Your task to perform on an android device: turn off data saver in the chrome app Image 0: 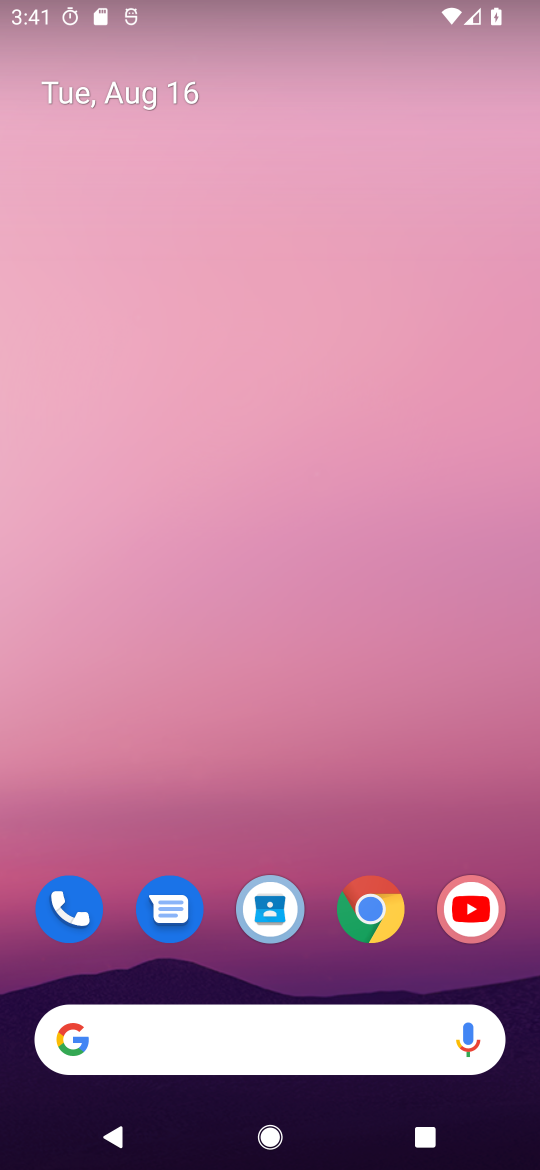
Step 0: click (388, 900)
Your task to perform on an android device: turn off data saver in the chrome app Image 1: 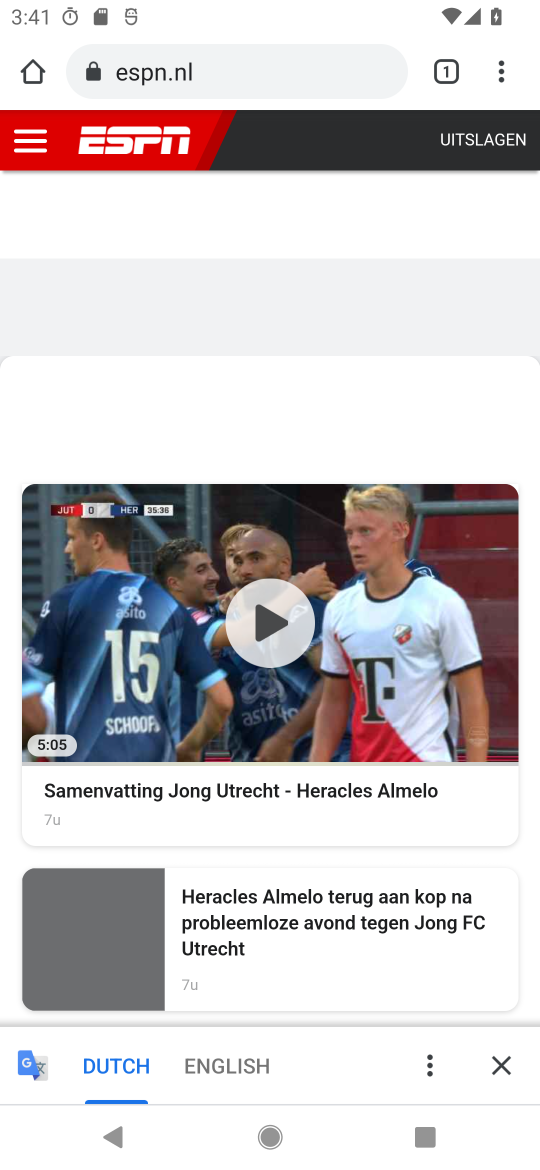
Step 1: click (497, 74)
Your task to perform on an android device: turn off data saver in the chrome app Image 2: 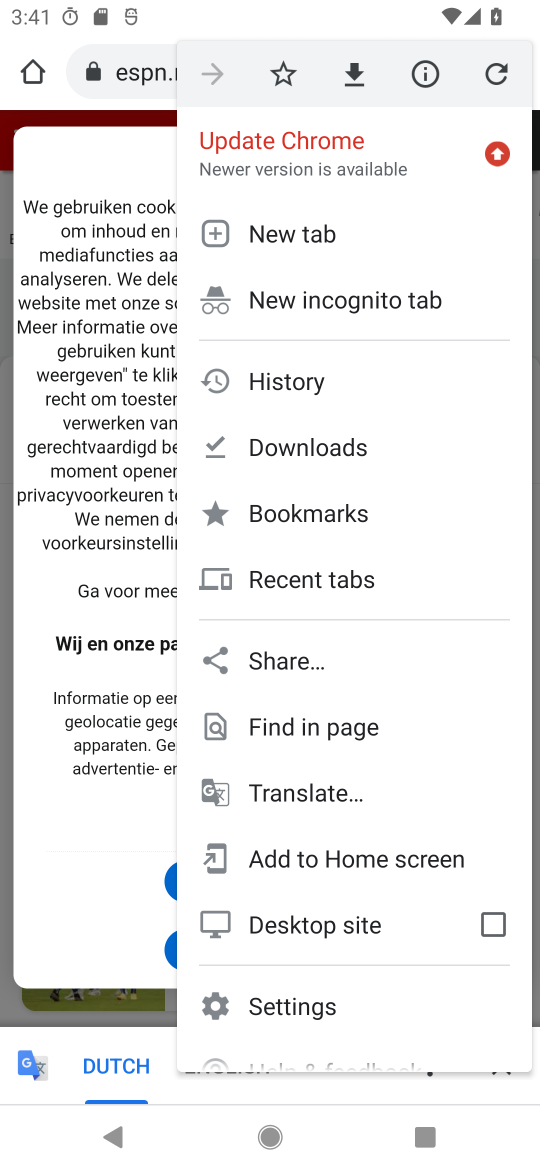
Step 2: click (336, 1001)
Your task to perform on an android device: turn off data saver in the chrome app Image 3: 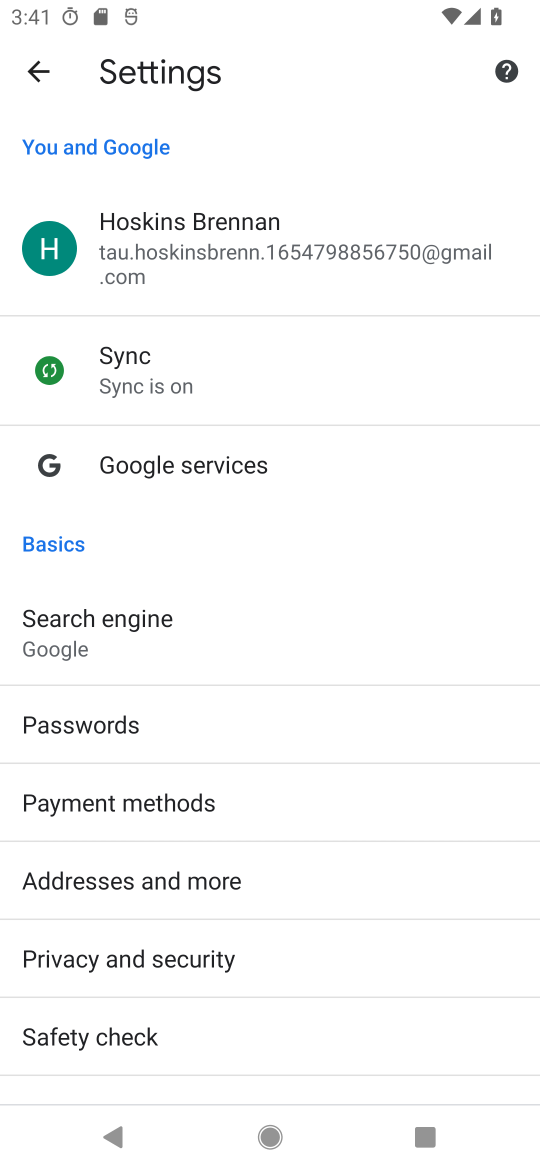
Step 3: task complete